Your task to perform on an android device: Go to wifi settings Image 0: 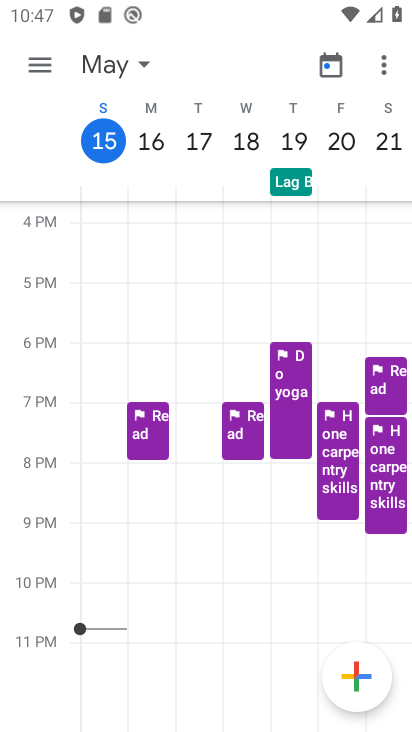
Step 0: press back button
Your task to perform on an android device: Go to wifi settings Image 1: 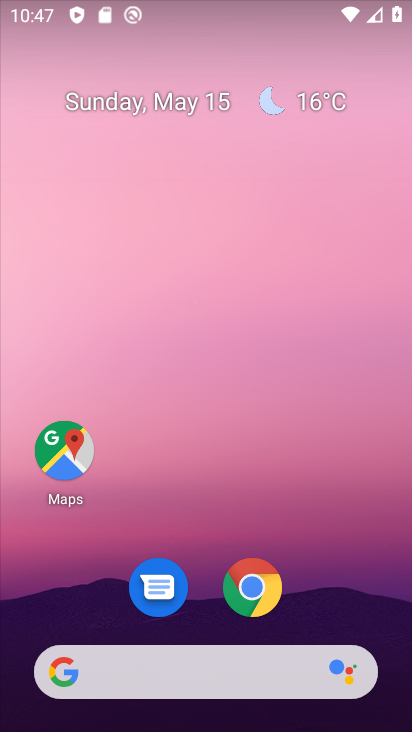
Step 1: drag from (331, 591) to (211, 2)
Your task to perform on an android device: Go to wifi settings Image 2: 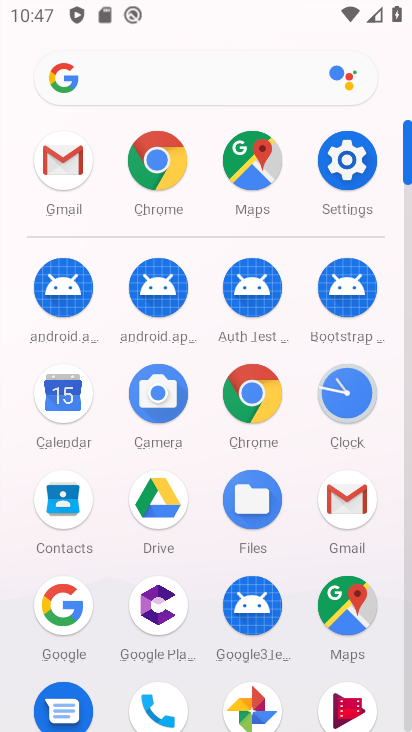
Step 2: click (342, 155)
Your task to perform on an android device: Go to wifi settings Image 3: 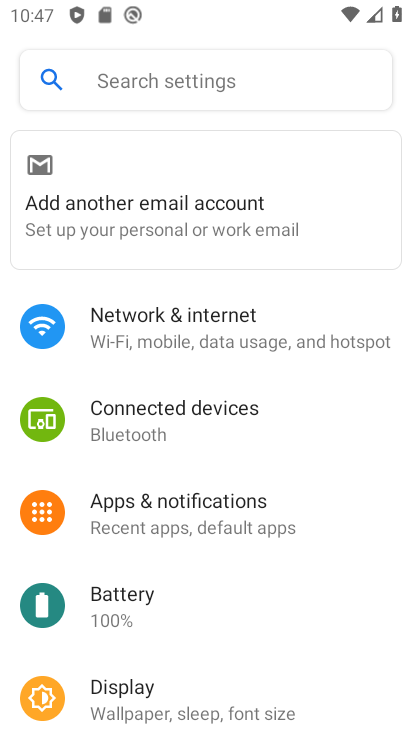
Step 3: click (157, 309)
Your task to perform on an android device: Go to wifi settings Image 4: 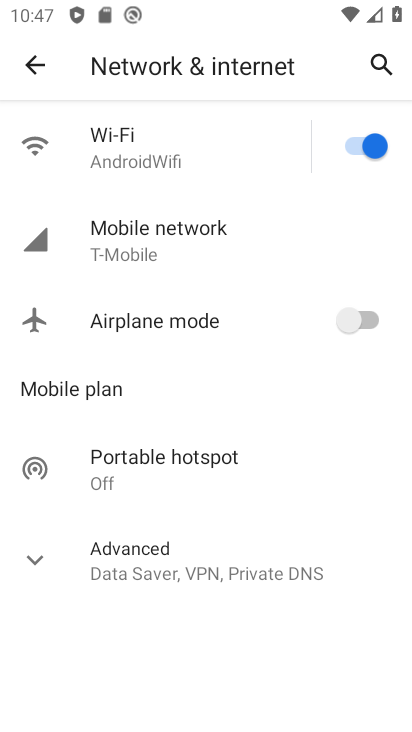
Step 4: click (154, 164)
Your task to perform on an android device: Go to wifi settings Image 5: 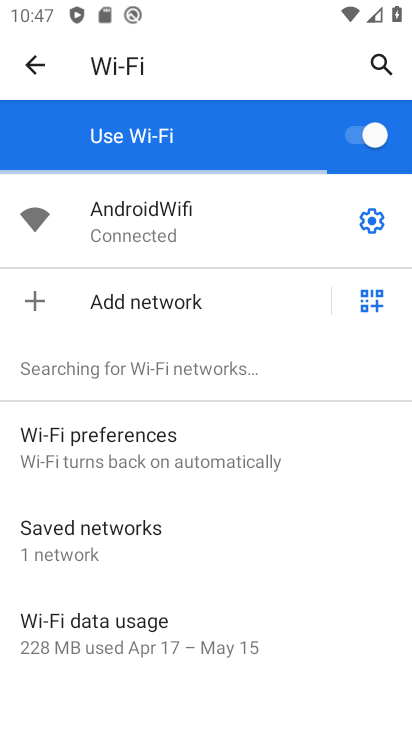
Step 5: task complete